Your task to perform on an android device: Go to accessibility settings Image 0: 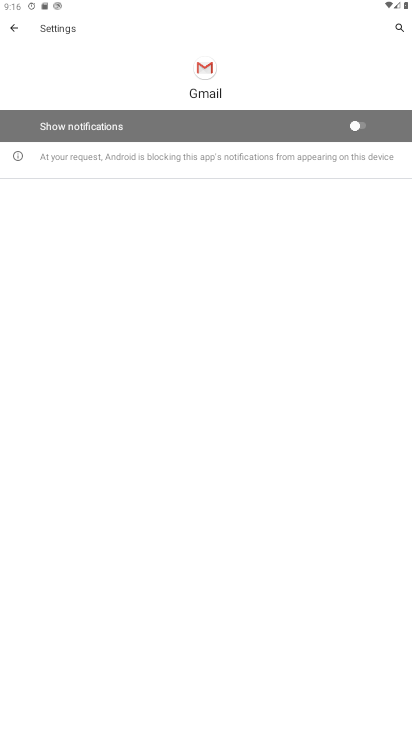
Step 0: press home button
Your task to perform on an android device: Go to accessibility settings Image 1: 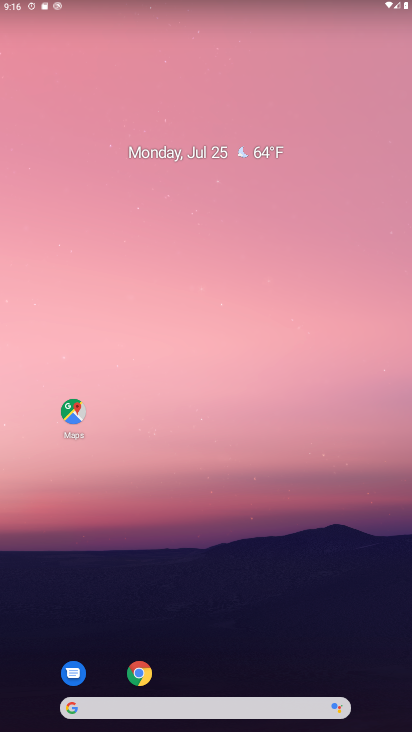
Step 1: drag from (220, 674) to (270, 51)
Your task to perform on an android device: Go to accessibility settings Image 2: 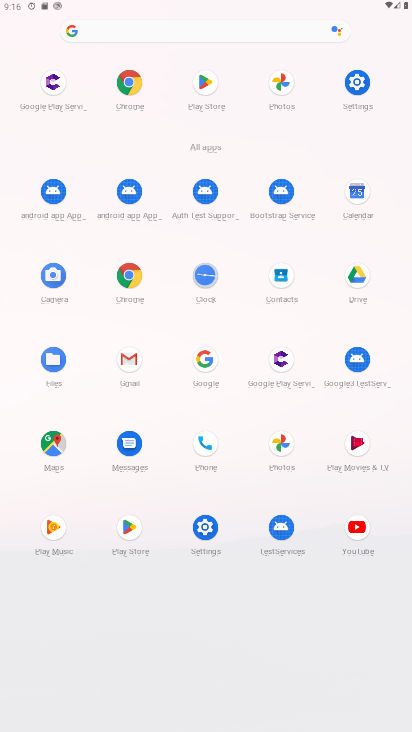
Step 2: click (355, 79)
Your task to perform on an android device: Go to accessibility settings Image 3: 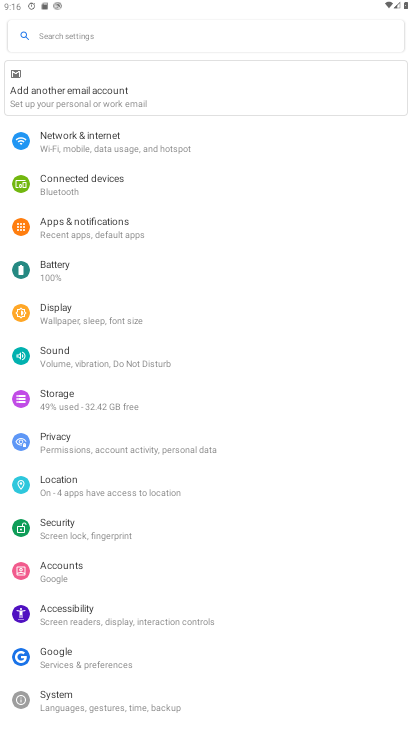
Step 3: click (95, 602)
Your task to perform on an android device: Go to accessibility settings Image 4: 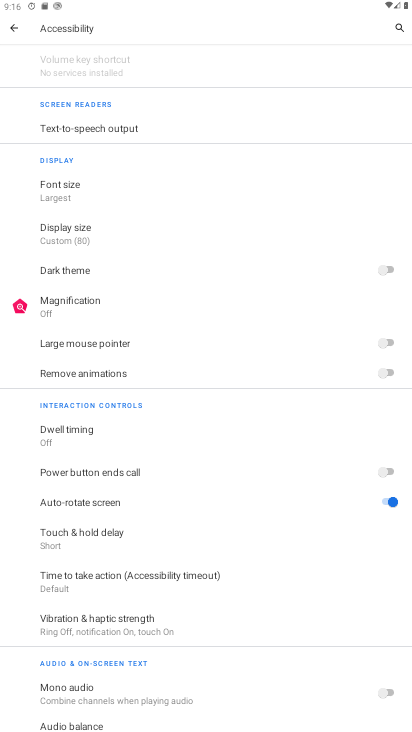
Step 4: task complete